Your task to perform on an android device: turn on airplane mode Image 0: 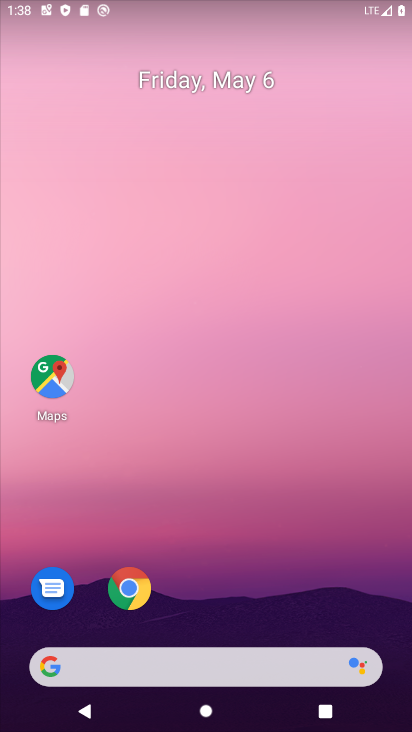
Step 0: drag from (348, 608) to (335, 99)
Your task to perform on an android device: turn on airplane mode Image 1: 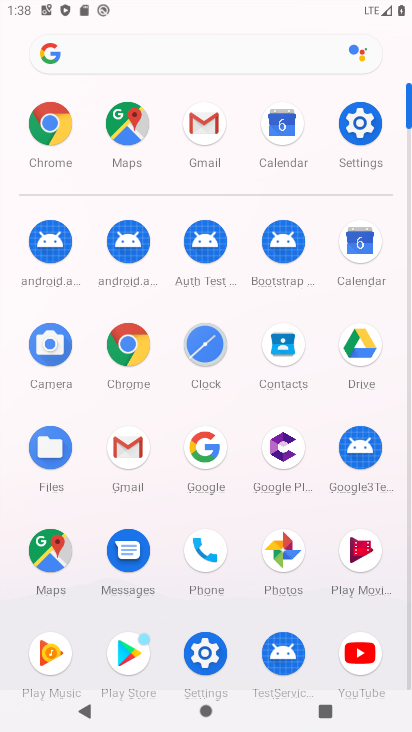
Step 1: click (373, 128)
Your task to perform on an android device: turn on airplane mode Image 2: 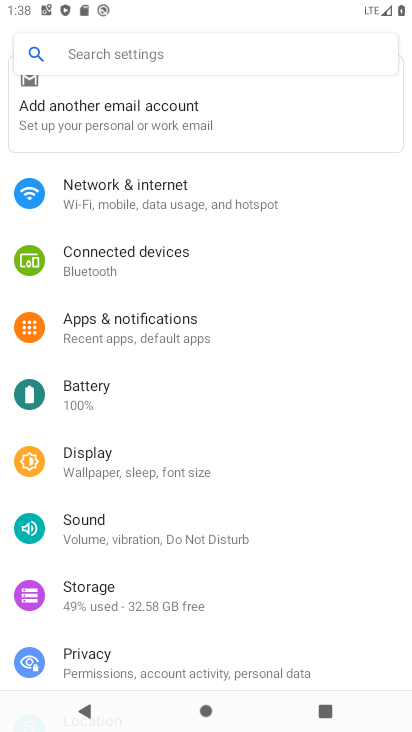
Step 2: click (190, 197)
Your task to perform on an android device: turn on airplane mode Image 3: 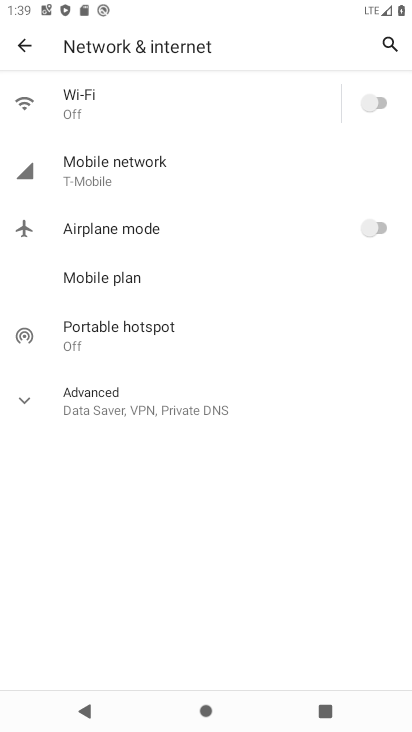
Step 3: click (385, 228)
Your task to perform on an android device: turn on airplane mode Image 4: 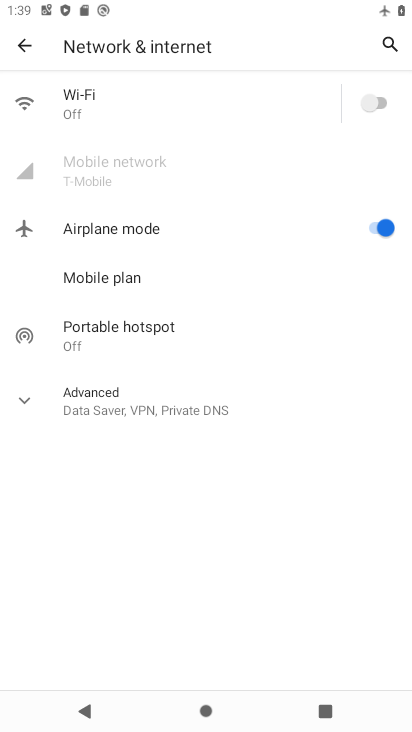
Step 4: task complete